Your task to perform on an android device: Open eBay Image 0: 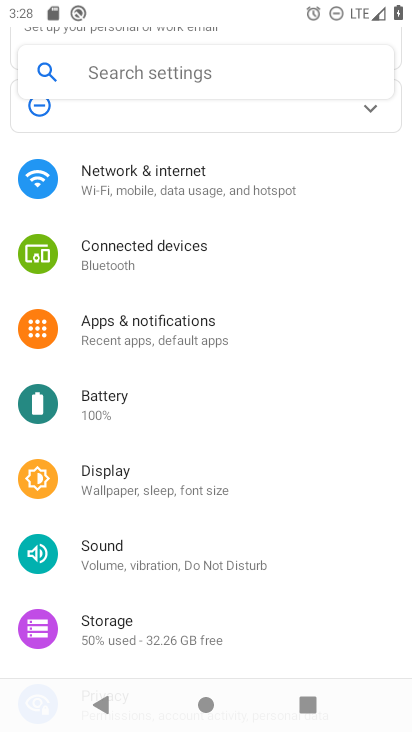
Step 0: press home button
Your task to perform on an android device: Open eBay Image 1: 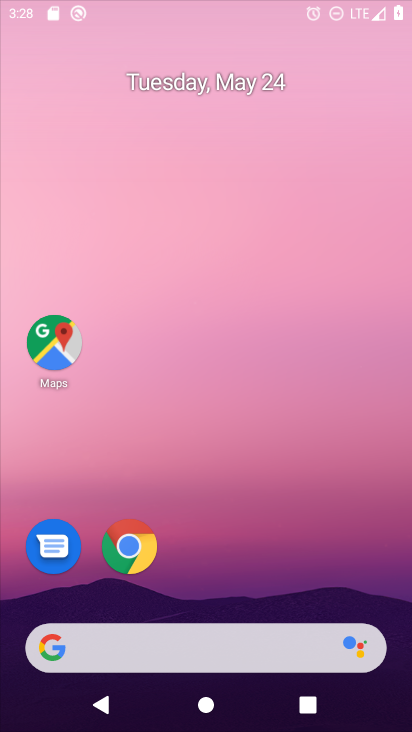
Step 1: drag from (177, 638) to (133, 151)
Your task to perform on an android device: Open eBay Image 2: 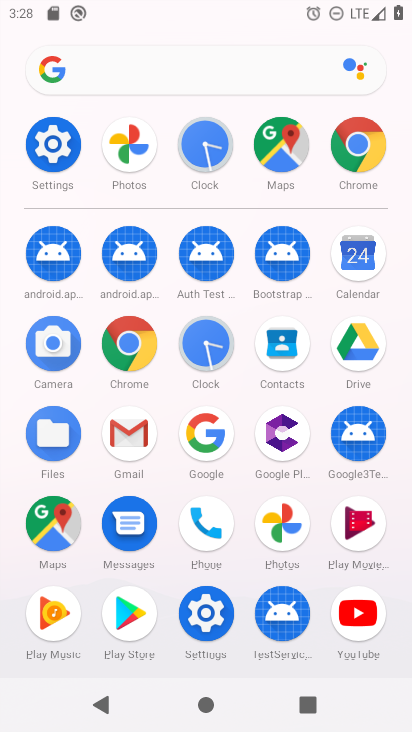
Step 2: click (135, 357)
Your task to perform on an android device: Open eBay Image 3: 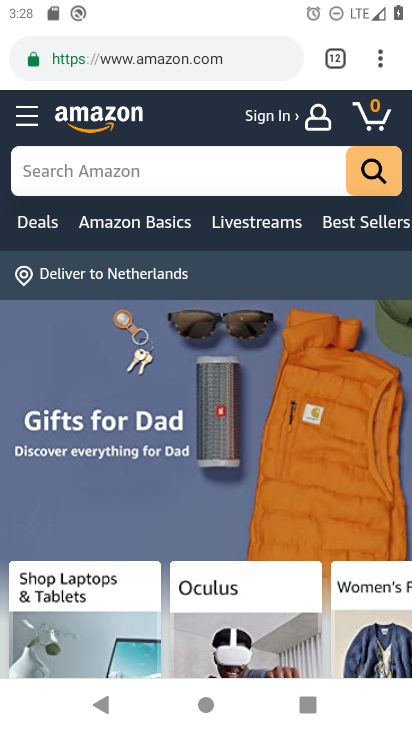
Step 3: click (200, 69)
Your task to perform on an android device: Open eBay Image 4: 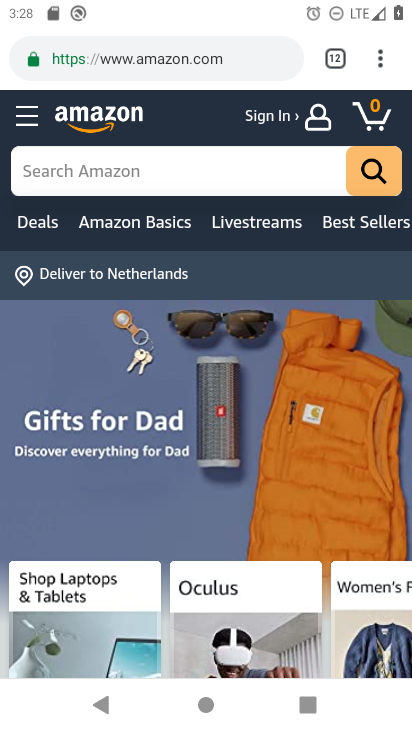
Step 4: click (182, 60)
Your task to perform on an android device: Open eBay Image 5: 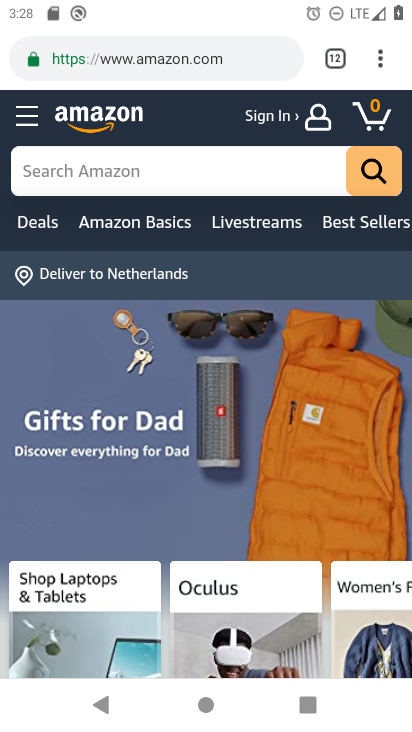
Step 5: click (182, 60)
Your task to perform on an android device: Open eBay Image 6: 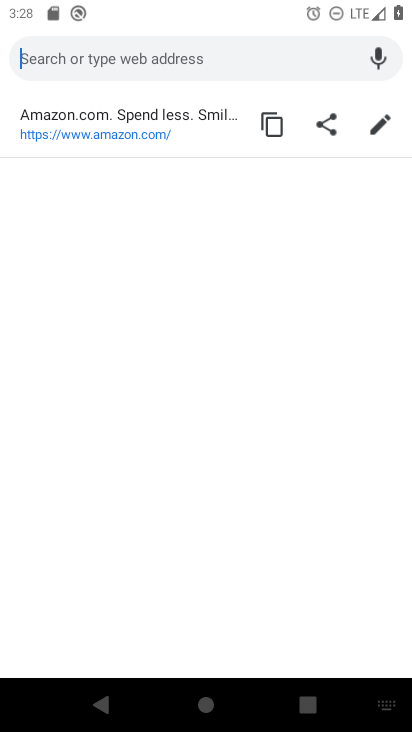
Step 6: type "ebay"
Your task to perform on an android device: Open eBay Image 7: 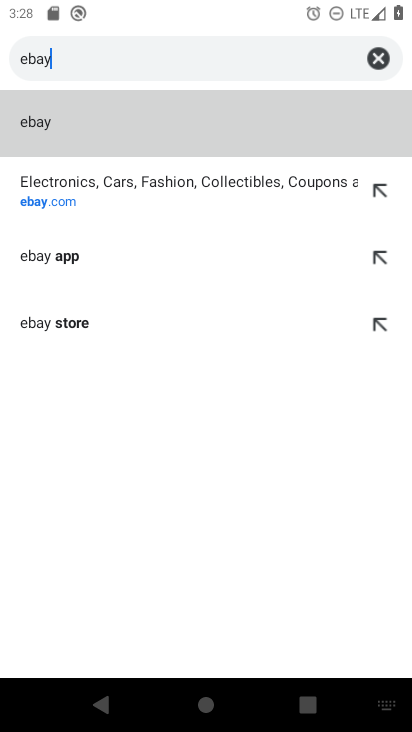
Step 7: click (31, 190)
Your task to perform on an android device: Open eBay Image 8: 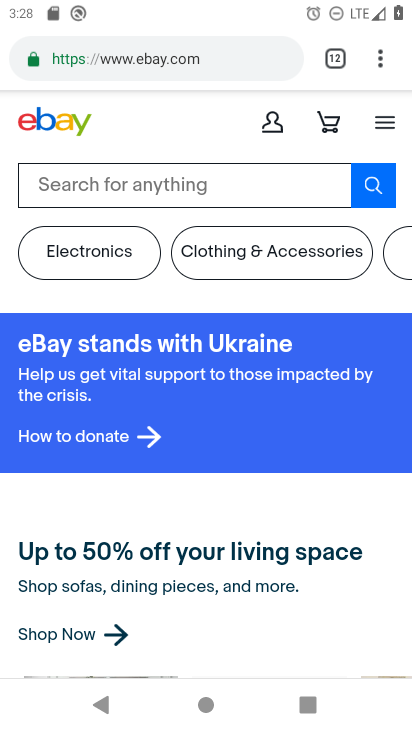
Step 8: task complete